Your task to perform on an android device: Is it going to rain tomorrow? Image 0: 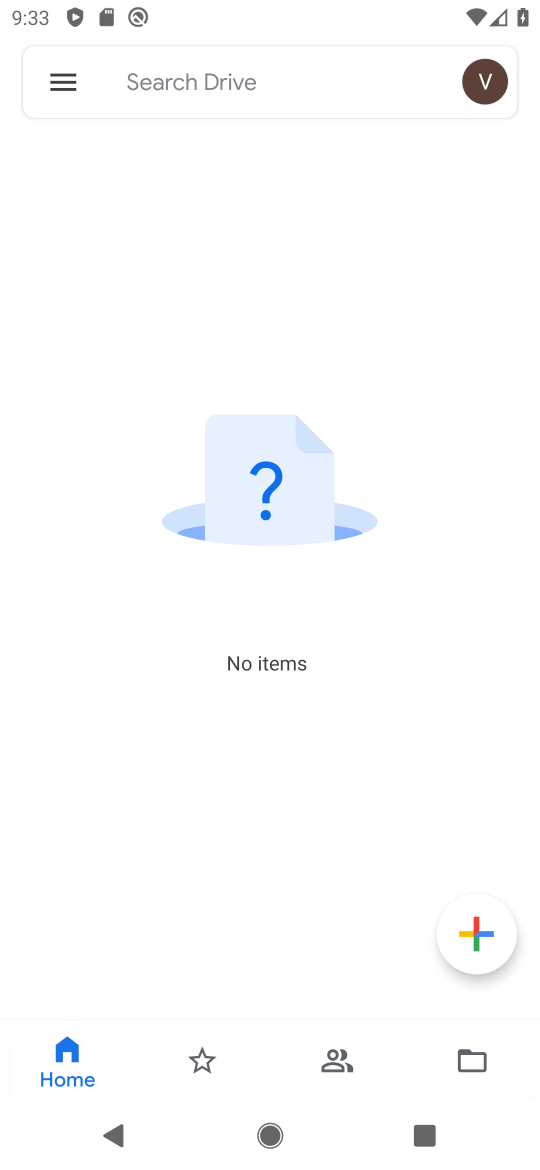
Step 0: press home button
Your task to perform on an android device: Is it going to rain tomorrow? Image 1: 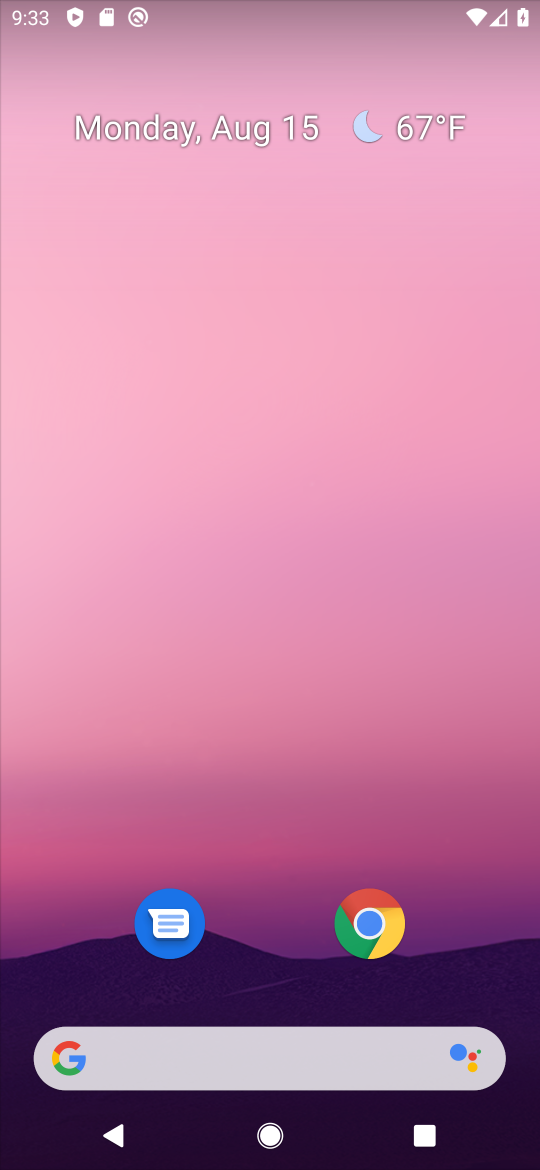
Step 1: click (160, 1042)
Your task to perform on an android device: Is it going to rain tomorrow? Image 2: 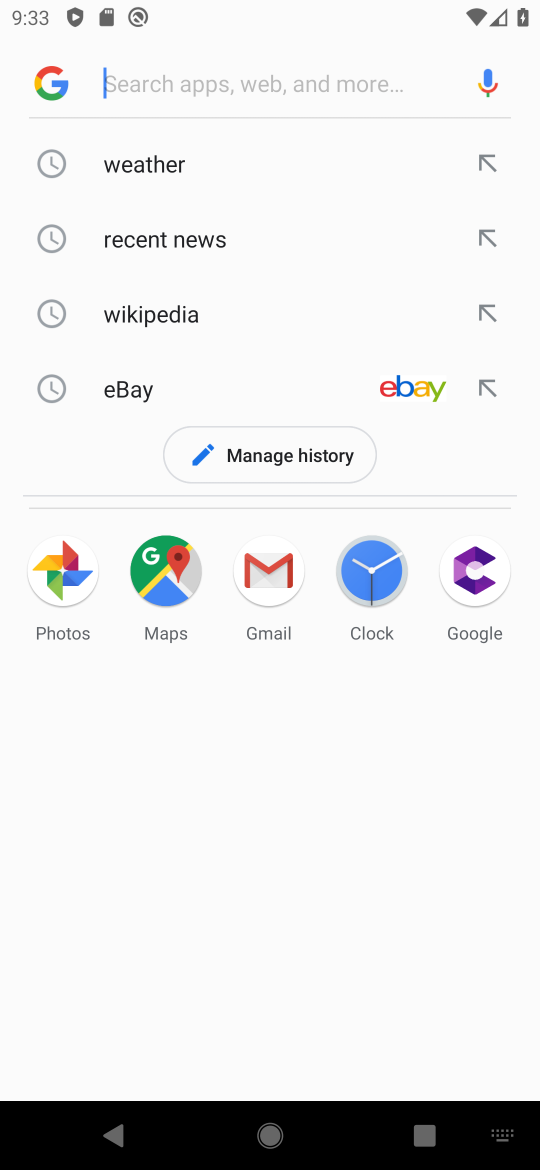
Step 2: click (141, 174)
Your task to perform on an android device: Is it going to rain tomorrow? Image 3: 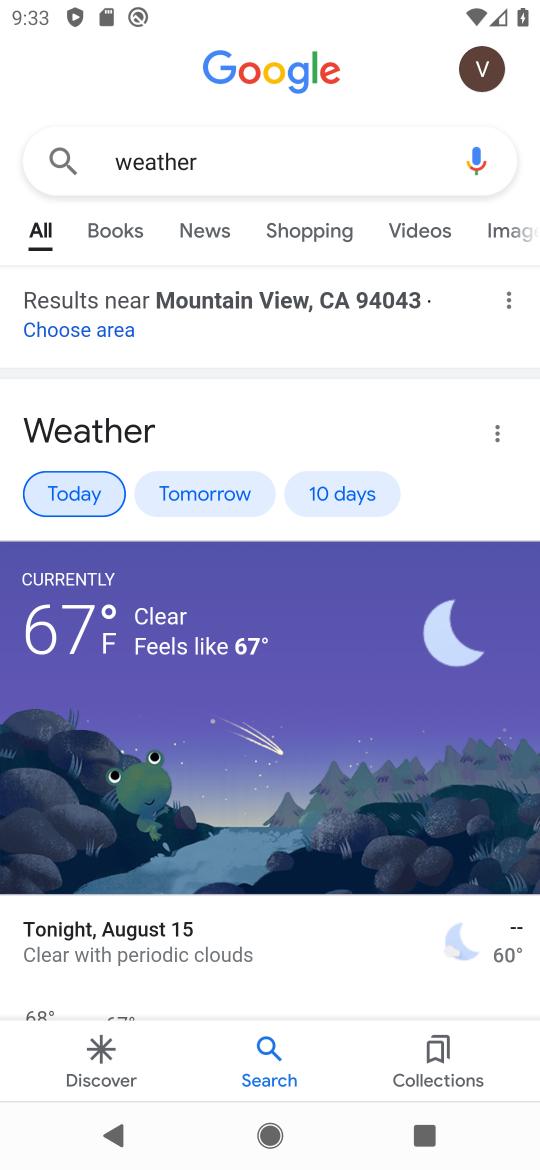
Step 3: task complete